Your task to perform on an android device: turn on airplane mode Image 0: 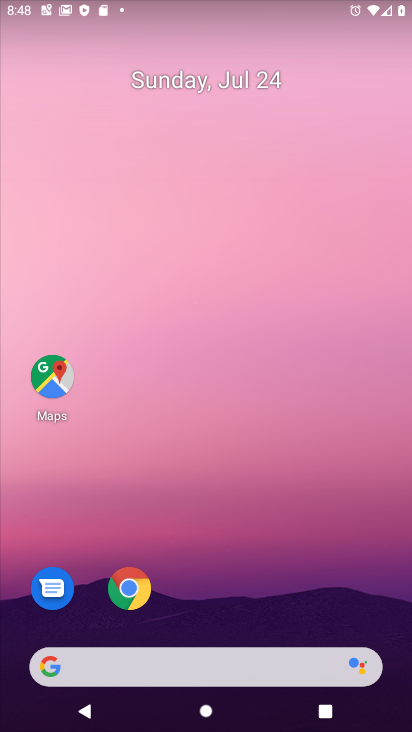
Step 0: press home button
Your task to perform on an android device: turn on airplane mode Image 1: 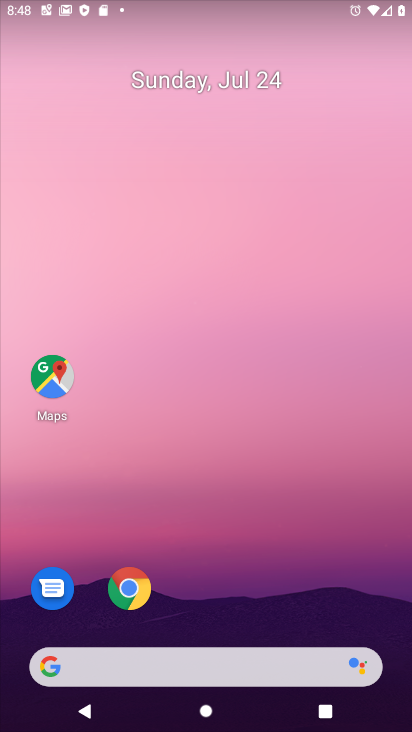
Step 1: drag from (268, 5) to (276, 621)
Your task to perform on an android device: turn on airplane mode Image 2: 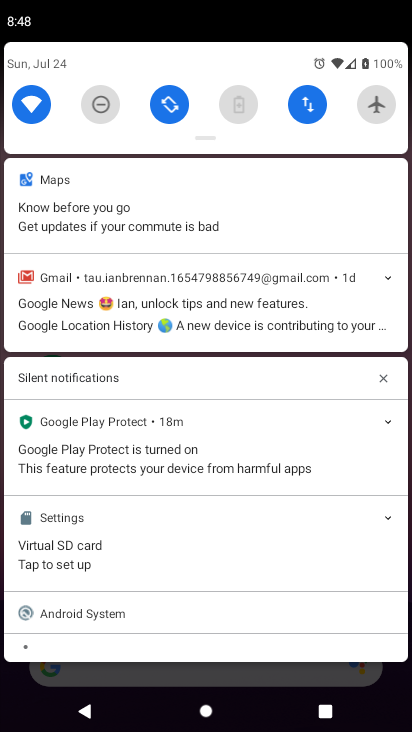
Step 2: click (379, 103)
Your task to perform on an android device: turn on airplane mode Image 3: 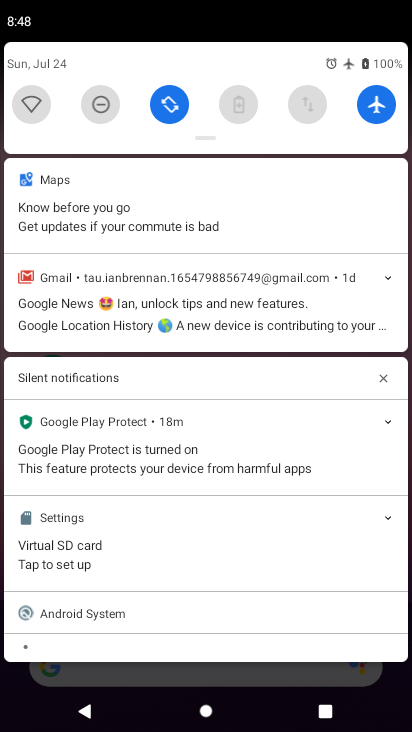
Step 3: task complete